Your task to perform on an android device: Is it going to rain this weekend? Image 0: 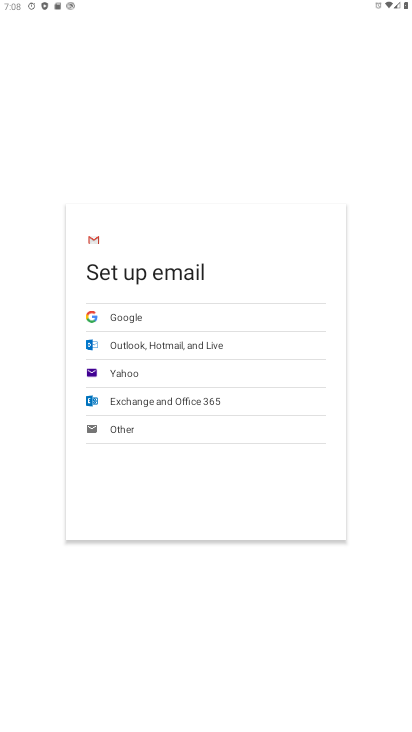
Step 0: press home button
Your task to perform on an android device: Is it going to rain this weekend? Image 1: 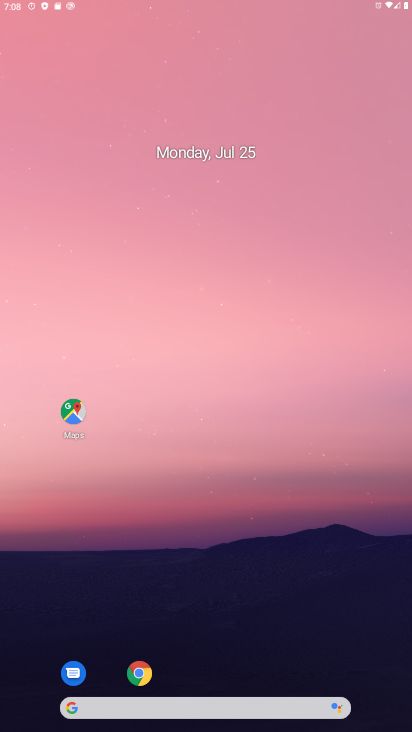
Step 1: drag from (386, 653) to (212, 9)
Your task to perform on an android device: Is it going to rain this weekend? Image 2: 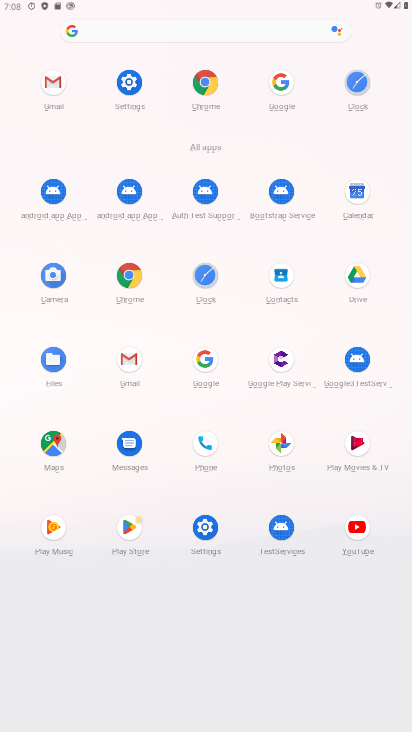
Step 2: click (205, 392)
Your task to perform on an android device: Is it going to rain this weekend? Image 3: 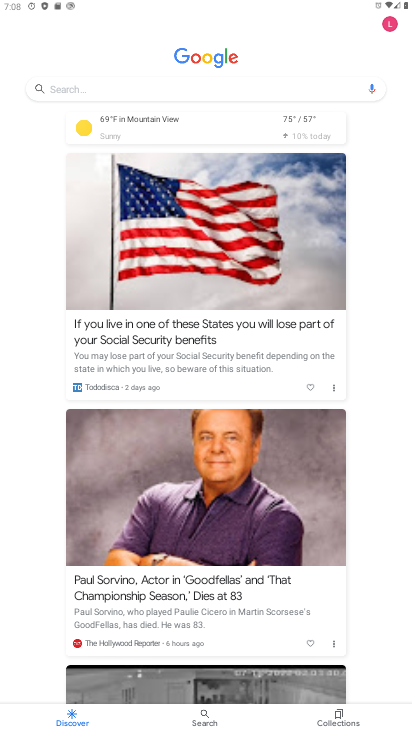
Step 3: click (82, 86)
Your task to perform on an android device: Is it going to rain this weekend? Image 4: 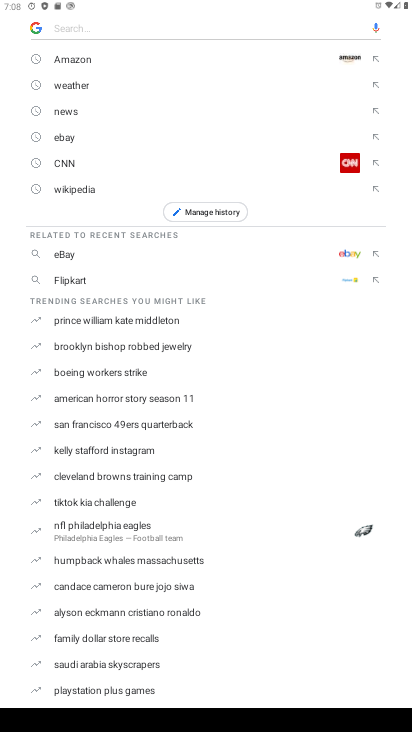
Step 4: type "Is it going to rain this weekend?"
Your task to perform on an android device: Is it going to rain this weekend? Image 5: 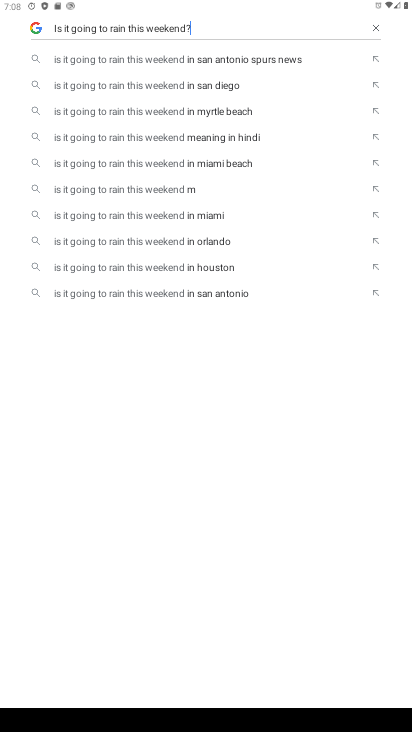
Step 5: task complete